Your task to perform on an android device: What's the weather going to be tomorrow? Image 0: 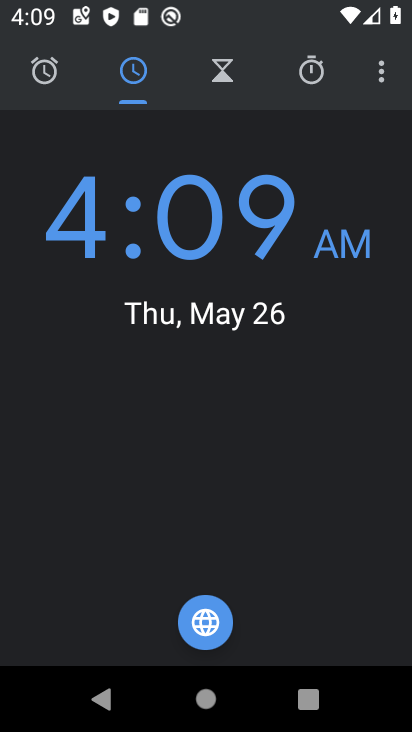
Step 0: press back button
Your task to perform on an android device: What's the weather going to be tomorrow? Image 1: 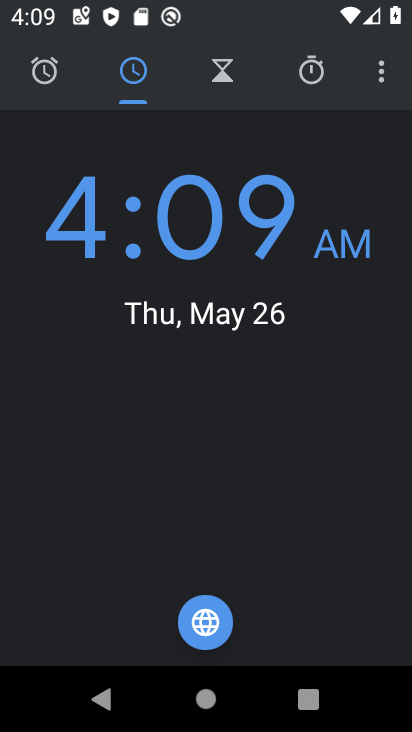
Step 1: press back button
Your task to perform on an android device: What's the weather going to be tomorrow? Image 2: 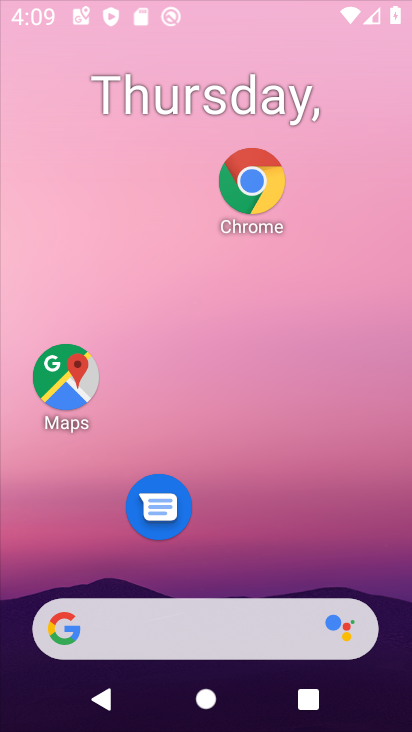
Step 2: press back button
Your task to perform on an android device: What's the weather going to be tomorrow? Image 3: 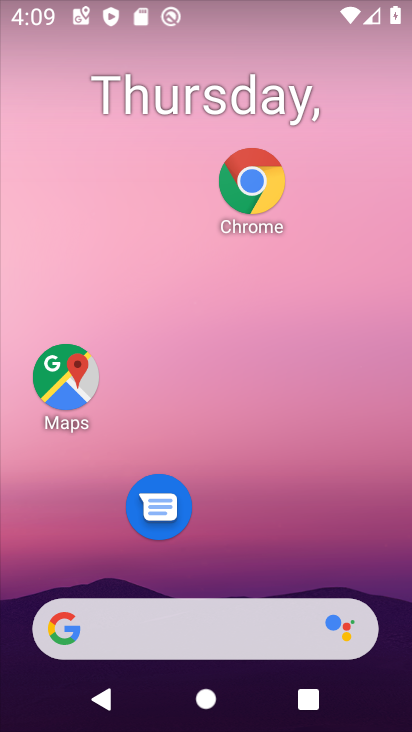
Step 3: drag from (270, 506) to (270, 231)
Your task to perform on an android device: What's the weather going to be tomorrow? Image 4: 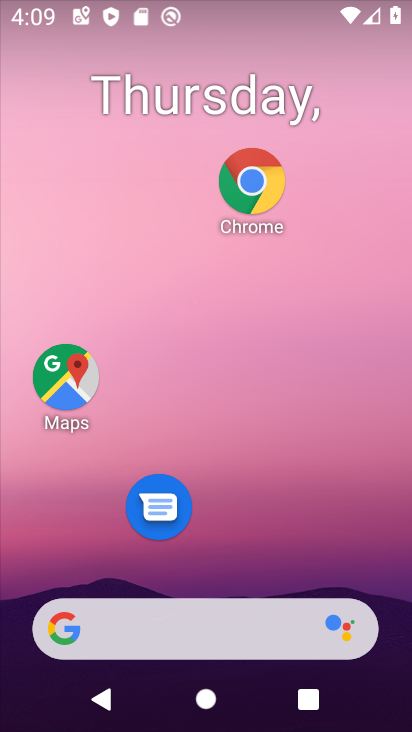
Step 4: drag from (3, 129) to (403, 314)
Your task to perform on an android device: What's the weather going to be tomorrow? Image 5: 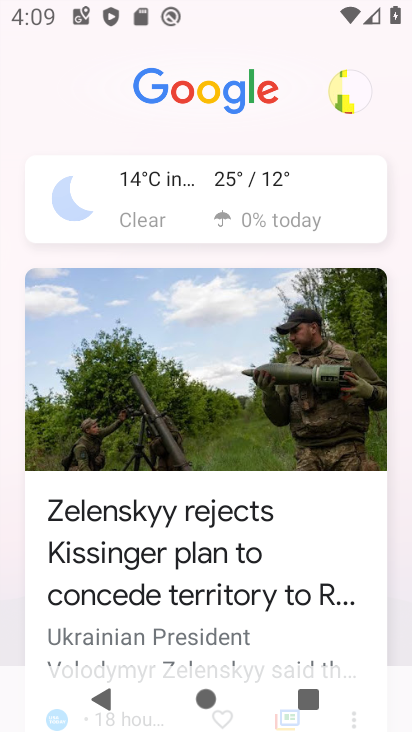
Step 5: click (177, 194)
Your task to perform on an android device: What's the weather going to be tomorrow? Image 6: 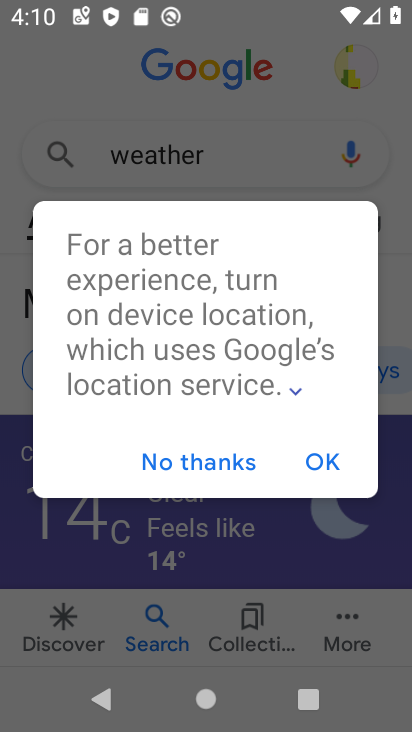
Step 6: click (187, 468)
Your task to perform on an android device: What's the weather going to be tomorrow? Image 7: 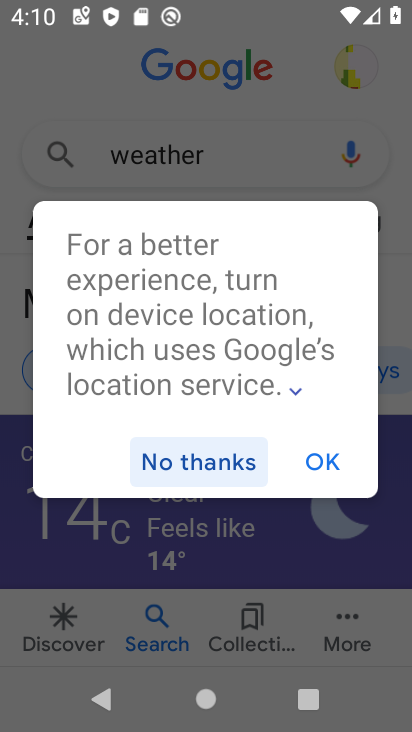
Step 7: click (191, 462)
Your task to perform on an android device: What's the weather going to be tomorrow? Image 8: 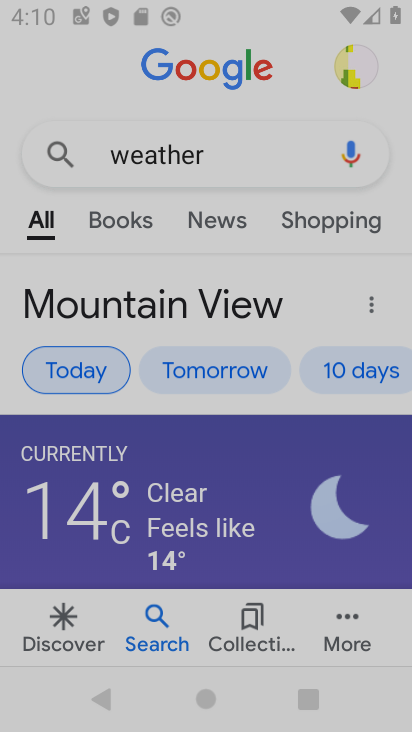
Step 8: click (191, 462)
Your task to perform on an android device: What's the weather going to be tomorrow? Image 9: 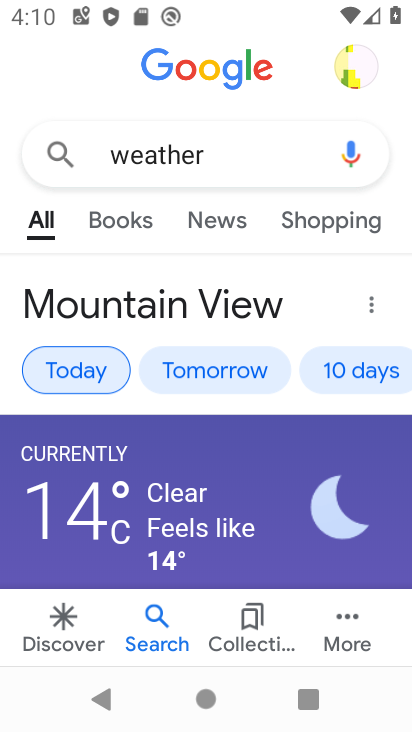
Step 9: click (202, 461)
Your task to perform on an android device: What's the weather going to be tomorrow? Image 10: 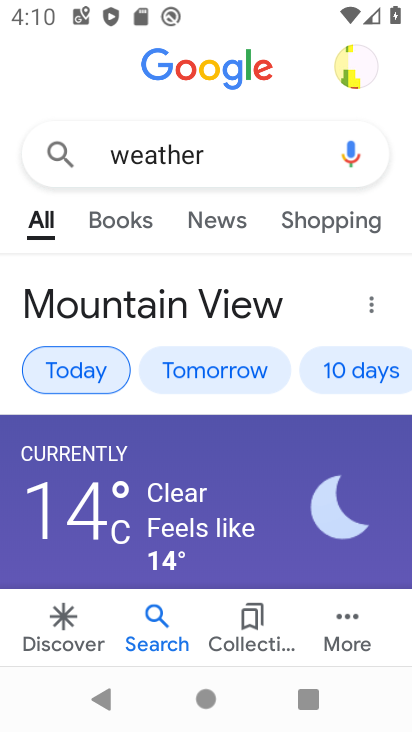
Step 10: click (205, 464)
Your task to perform on an android device: What's the weather going to be tomorrow? Image 11: 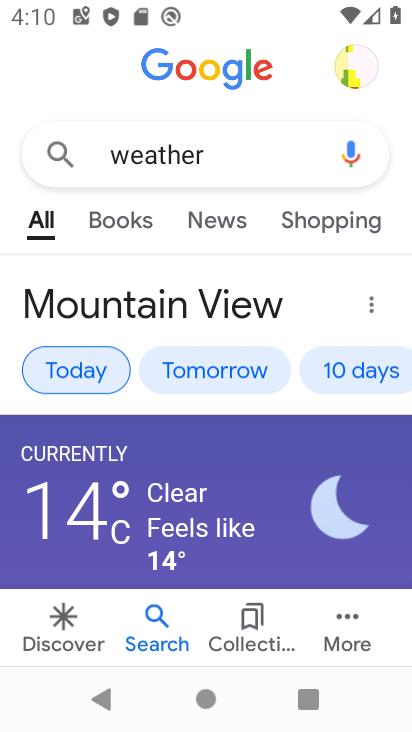
Step 11: click (229, 377)
Your task to perform on an android device: What's the weather going to be tomorrow? Image 12: 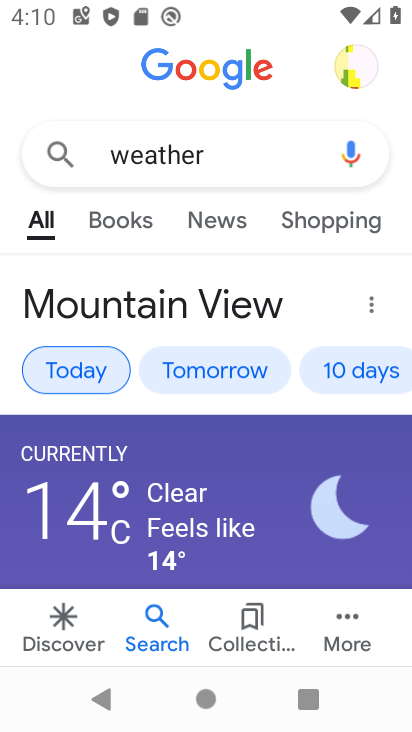
Step 12: click (228, 378)
Your task to perform on an android device: What's the weather going to be tomorrow? Image 13: 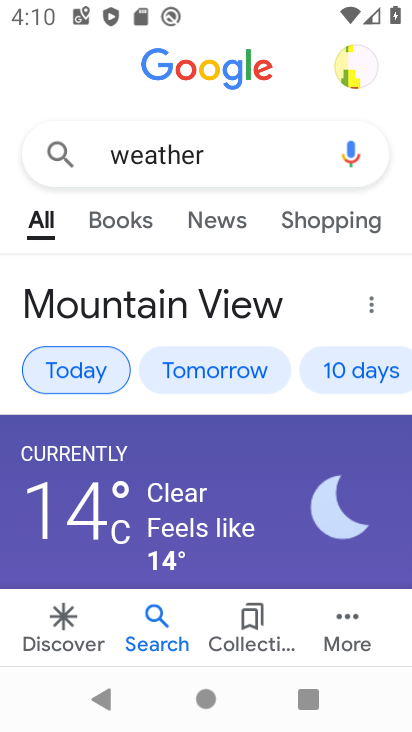
Step 13: click (228, 378)
Your task to perform on an android device: What's the weather going to be tomorrow? Image 14: 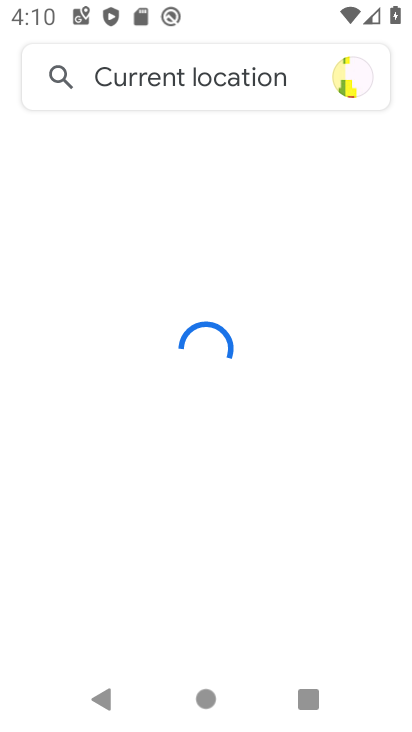
Step 14: click (221, 376)
Your task to perform on an android device: What's the weather going to be tomorrow? Image 15: 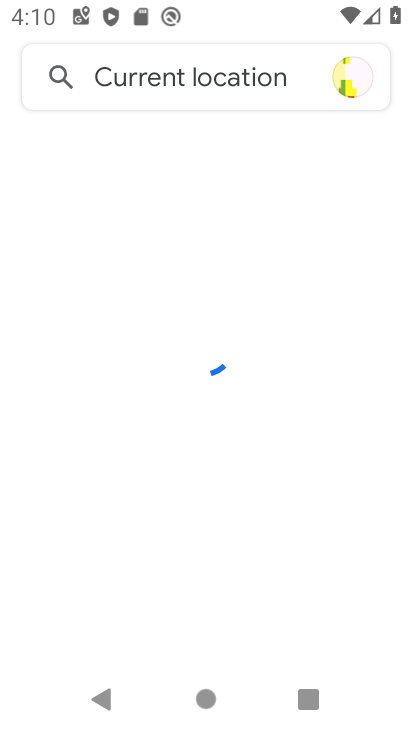
Step 15: click (221, 376)
Your task to perform on an android device: What's the weather going to be tomorrow? Image 16: 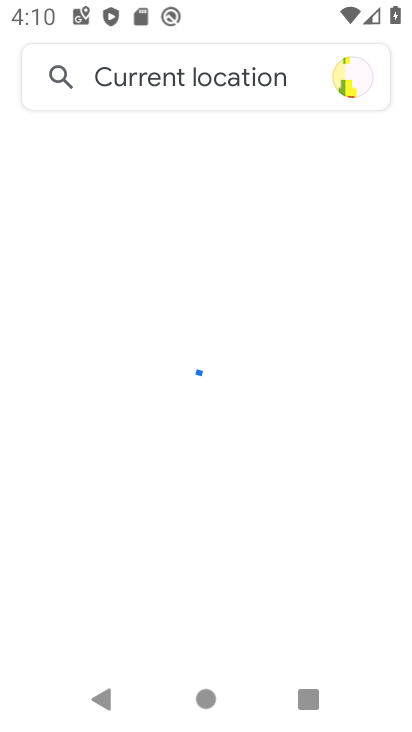
Step 16: click (214, 367)
Your task to perform on an android device: What's the weather going to be tomorrow? Image 17: 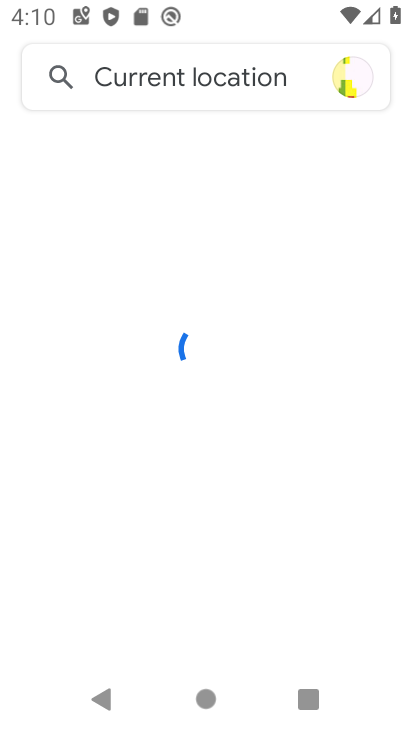
Step 17: click (209, 376)
Your task to perform on an android device: What's the weather going to be tomorrow? Image 18: 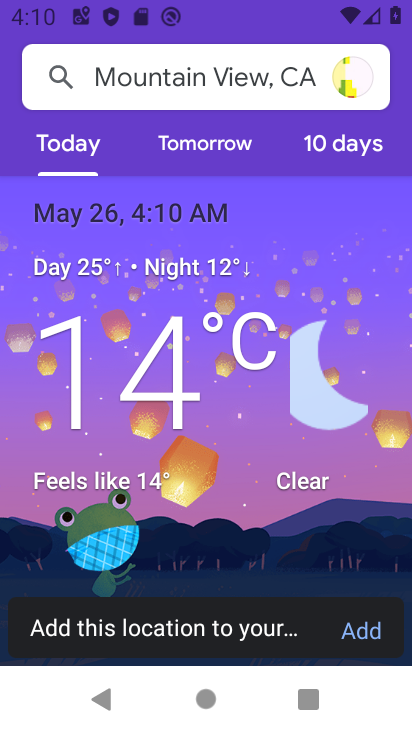
Step 18: task complete